Your task to perform on an android device: Open location settings Image 0: 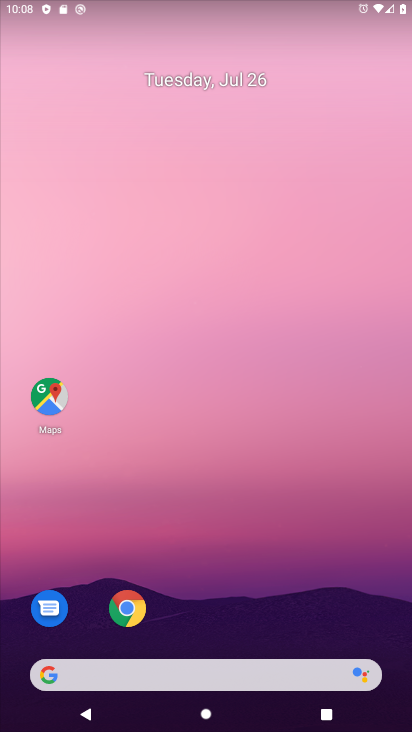
Step 0: drag from (232, 729) to (233, 47)
Your task to perform on an android device: Open location settings Image 1: 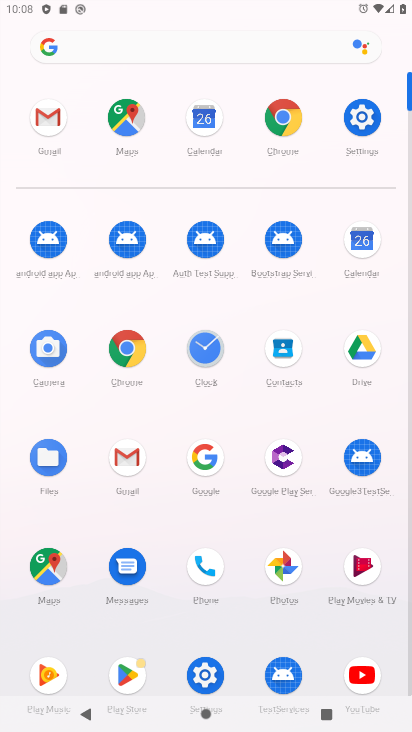
Step 1: click (358, 118)
Your task to perform on an android device: Open location settings Image 2: 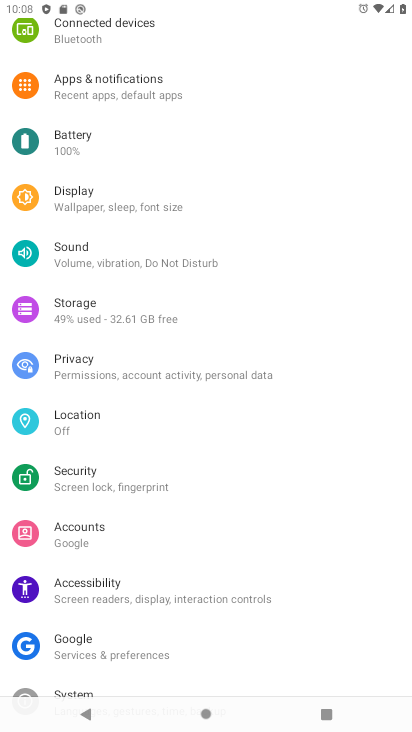
Step 2: click (75, 421)
Your task to perform on an android device: Open location settings Image 3: 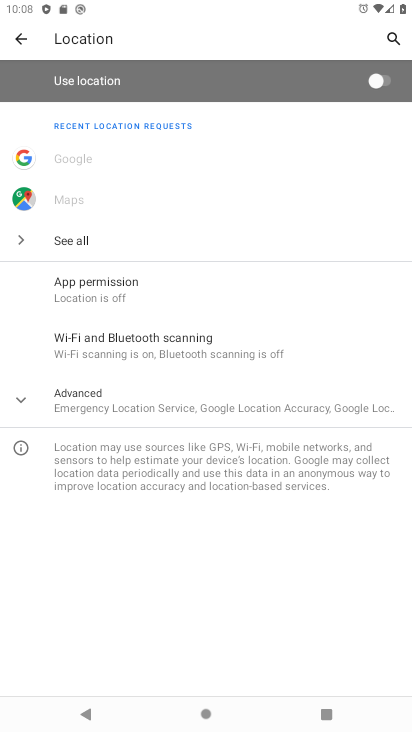
Step 3: task complete